Your task to perform on an android device: Open Yahoo.com Image 0: 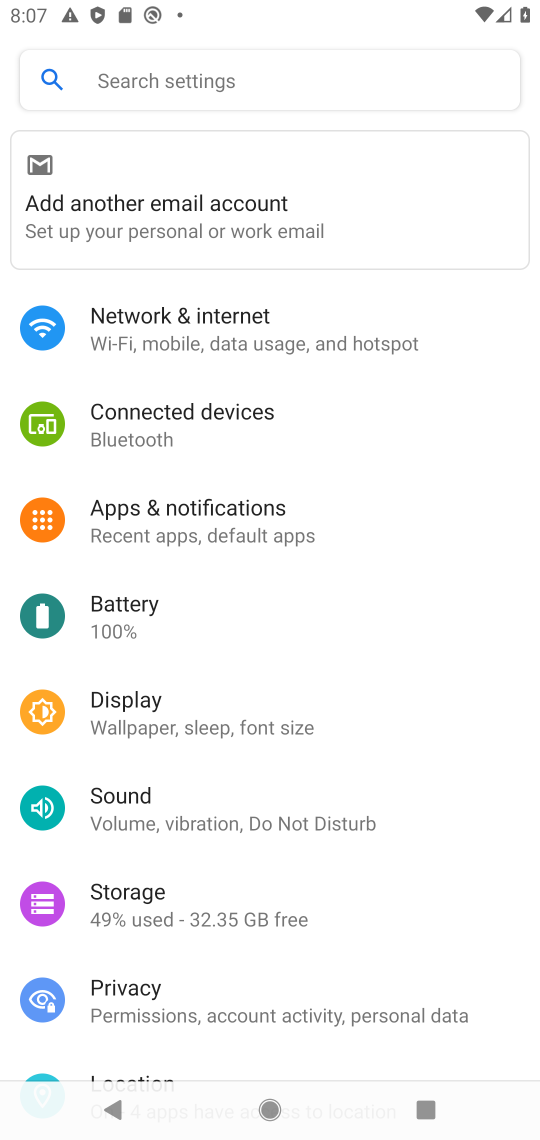
Step 0: press home button
Your task to perform on an android device: Open Yahoo.com Image 1: 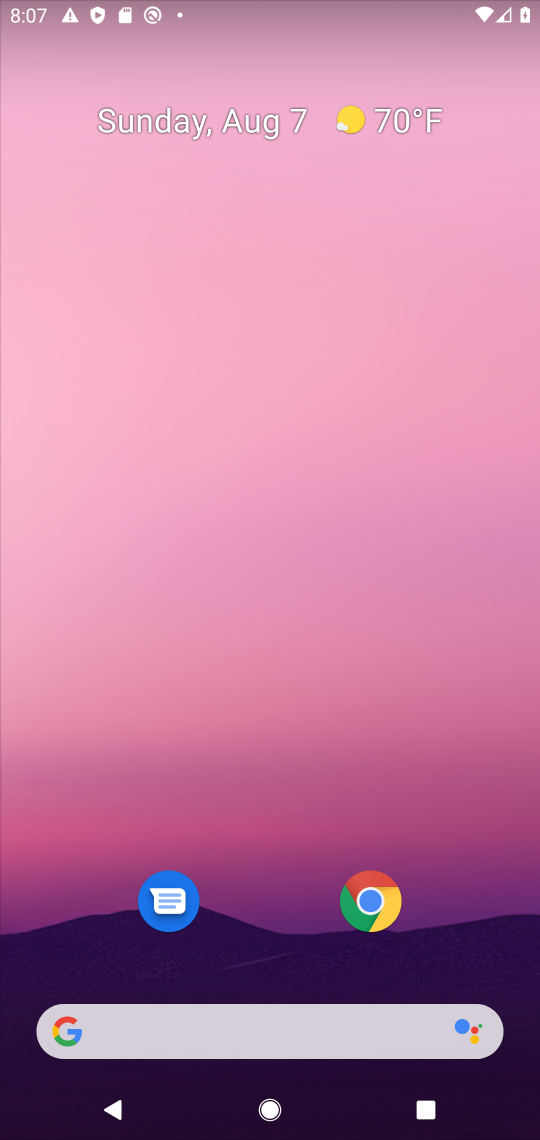
Step 1: click (358, 912)
Your task to perform on an android device: Open Yahoo.com Image 2: 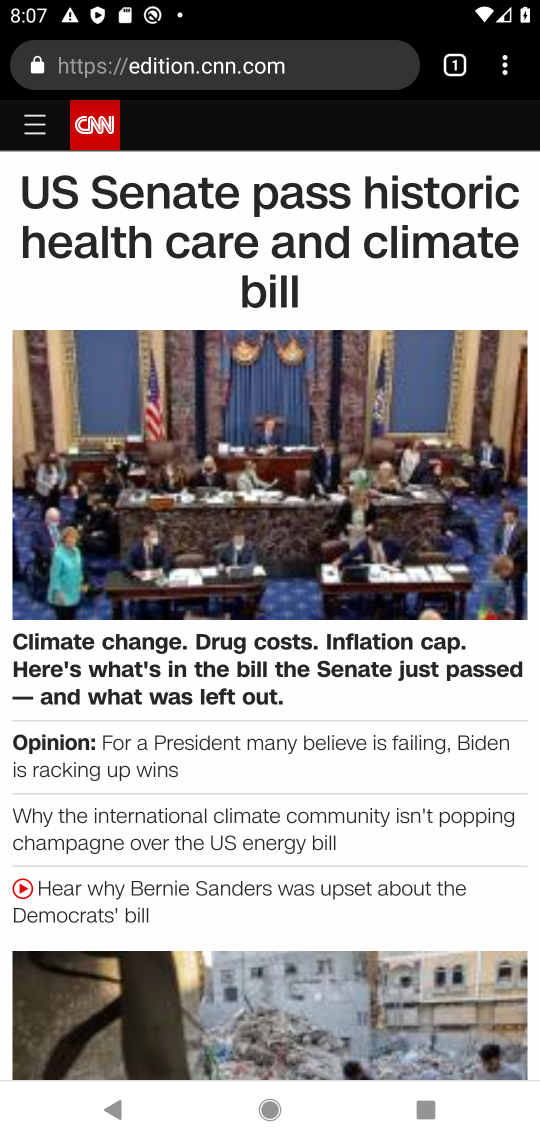
Step 2: press home button
Your task to perform on an android device: Open Yahoo.com Image 3: 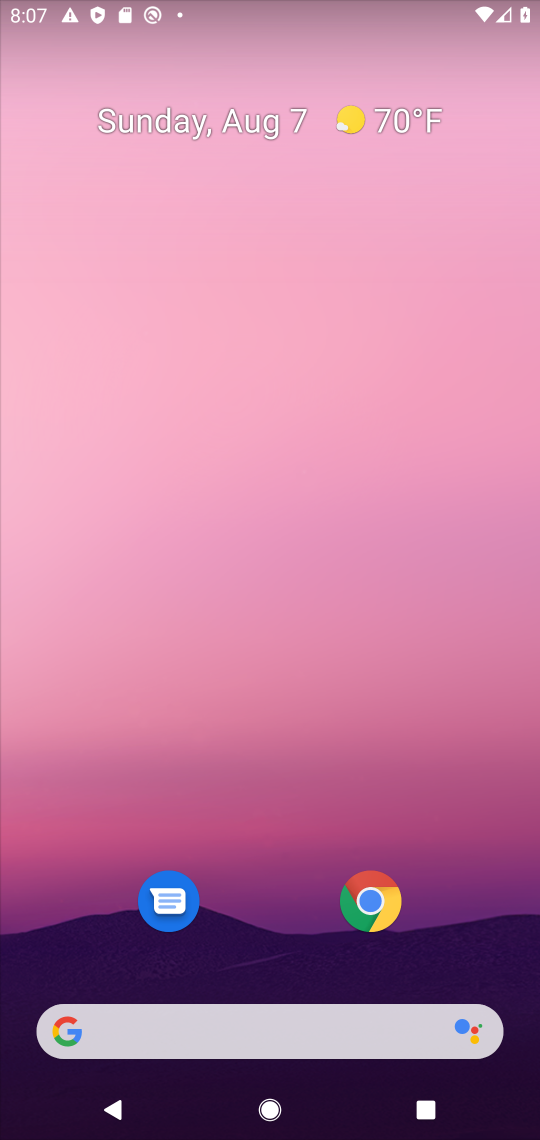
Step 3: click (314, 899)
Your task to perform on an android device: Open Yahoo.com Image 4: 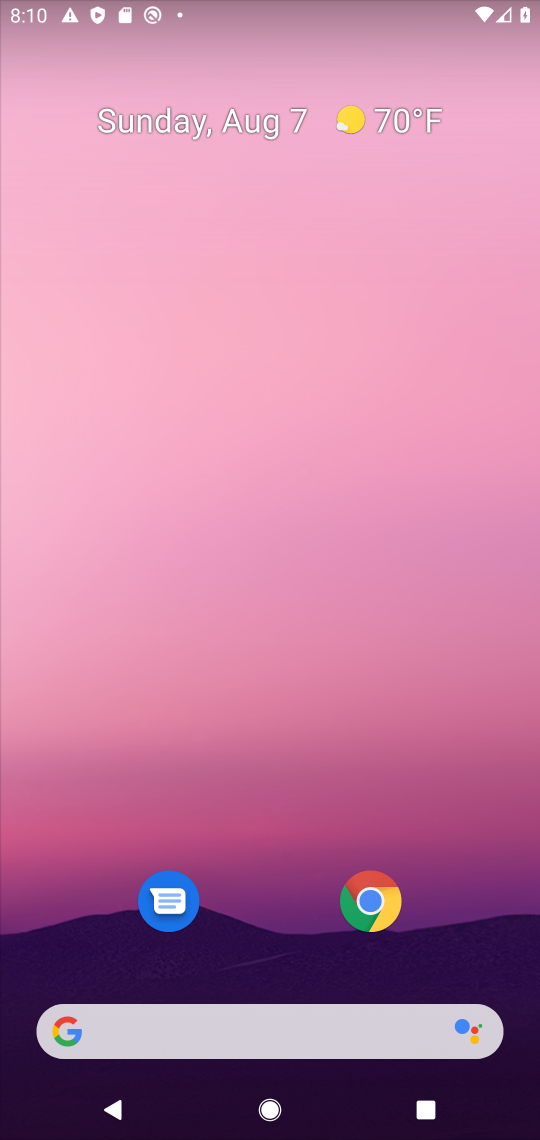
Step 4: click (378, 903)
Your task to perform on an android device: Open Yahoo.com Image 5: 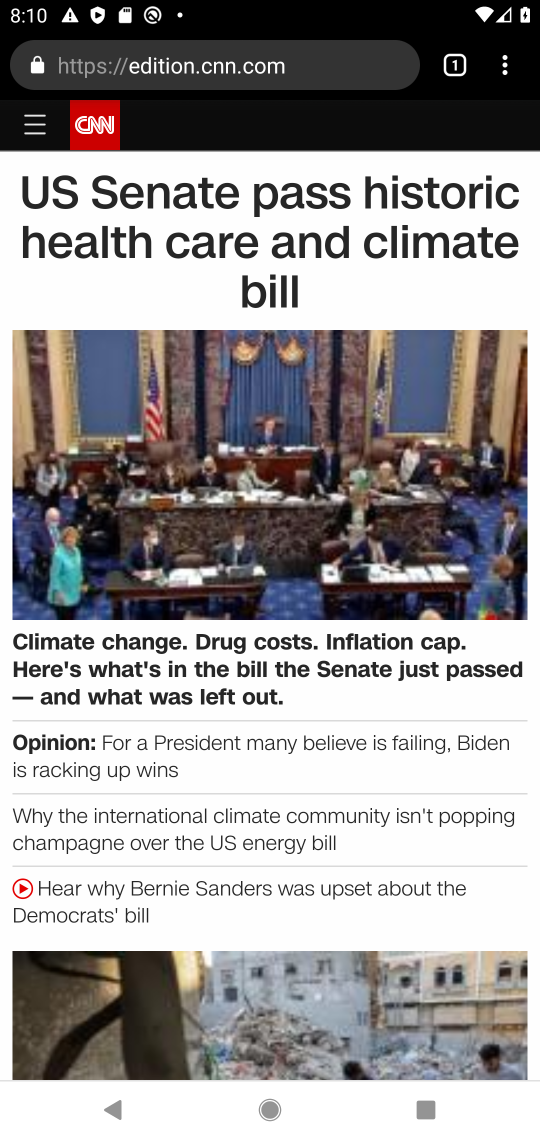
Step 5: click (452, 72)
Your task to perform on an android device: Open Yahoo.com Image 6: 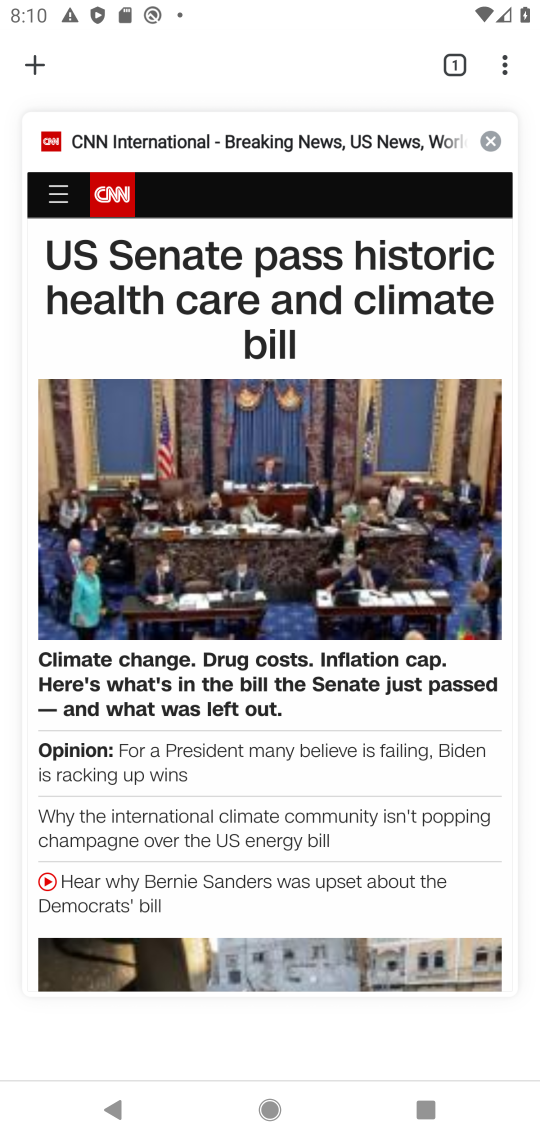
Step 6: click (35, 69)
Your task to perform on an android device: Open Yahoo.com Image 7: 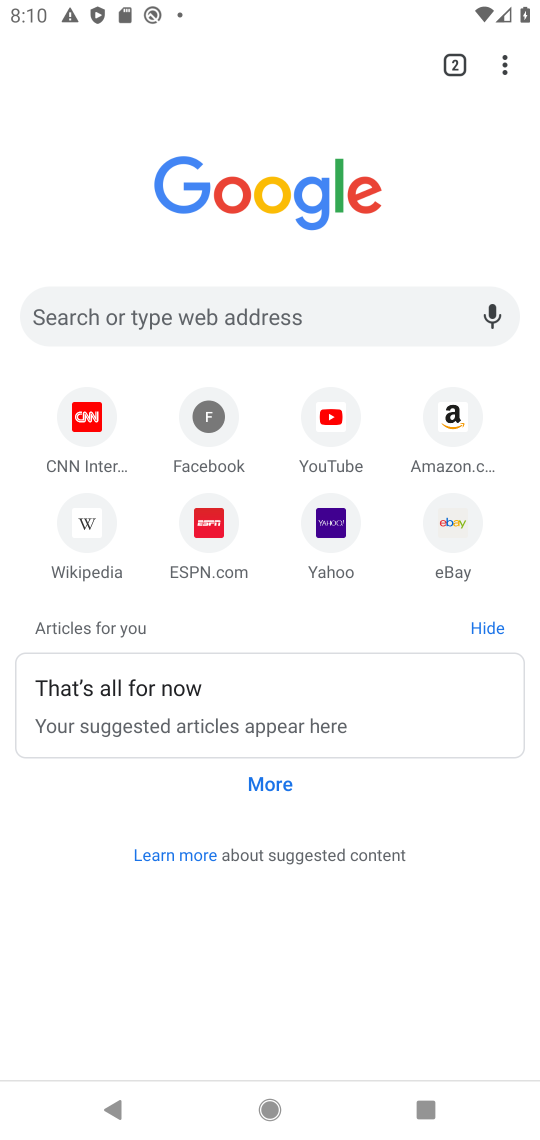
Step 7: click (336, 521)
Your task to perform on an android device: Open Yahoo.com Image 8: 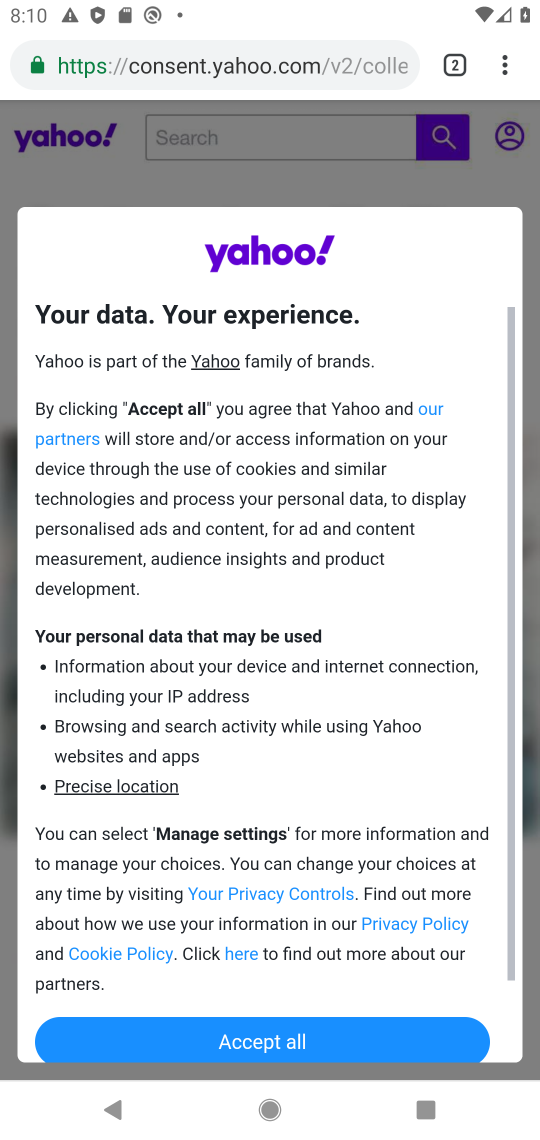
Step 8: task complete